Your task to perform on an android device: Search for sushi restaurants on Maps Image 0: 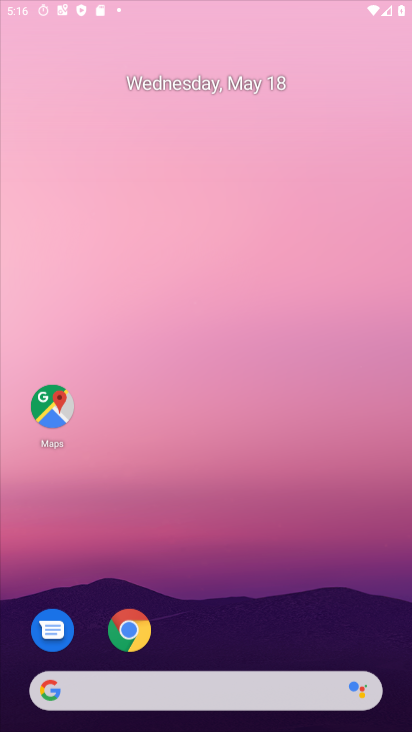
Step 0: drag from (195, 665) to (204, 338)
Your task to perform on an android device: Search for sushi restaurants on Maps Image 1: 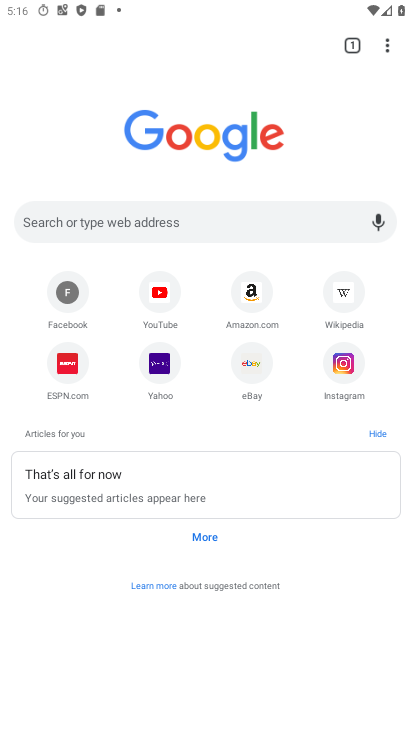
Step 1: press home button
Your task to perform on an android device: Search for sushi restaurants on Maps Image 2: 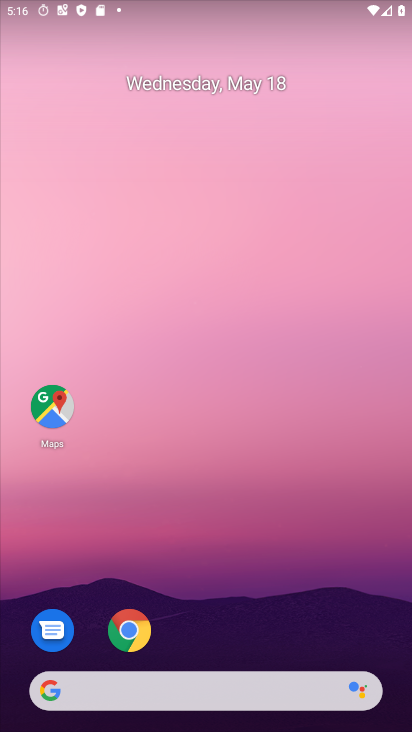
Step 2: click (35, 411)
Your task to perform on an android device: Search for sushi restaurants on Maps Image 3: 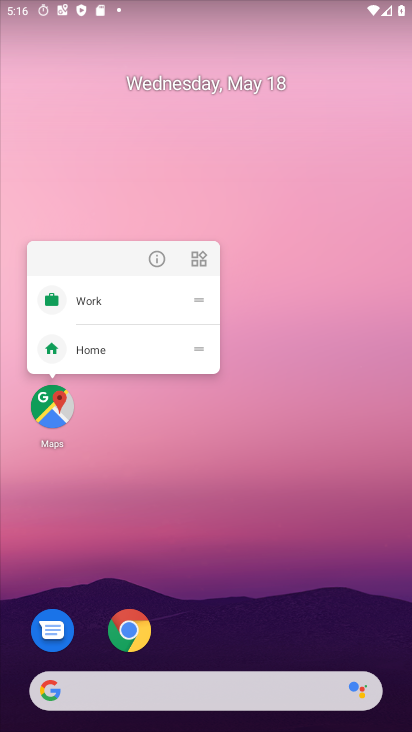
Step 3: click (57, 414)
Your task to perform on an android device: Search for sushi restaurants on Maps Image 4: 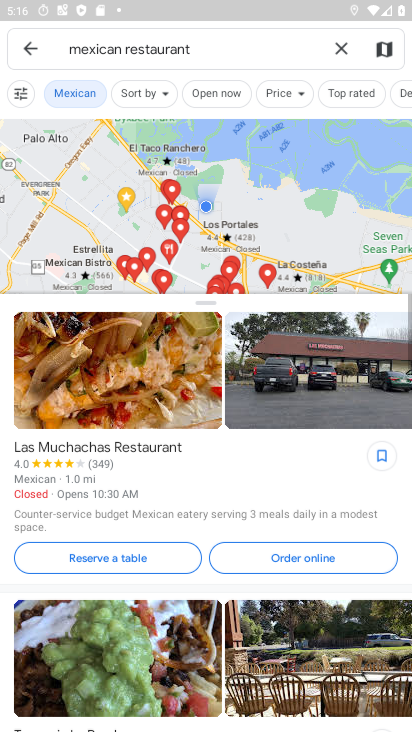
Step 4: click (351, 44)
Your task to perform on an android device: Search for sushi restaurants on Maps Image 5: 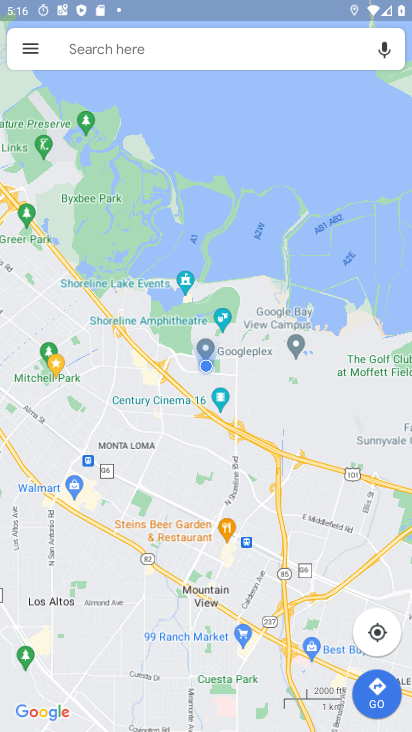
Step 5: click (207, 55)
Your task to perform on an android device: Search for sushi restaurants on Maps Image 6: 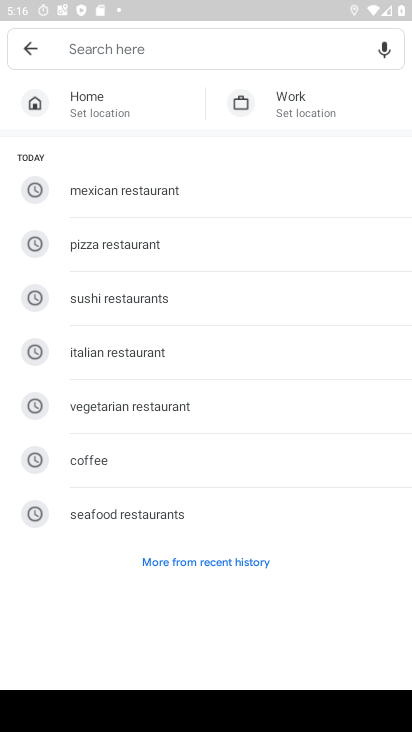
Step 6: click (91, 306)
Your task to perform on an android device: Search for sushi restaurants on Maps Image 7: 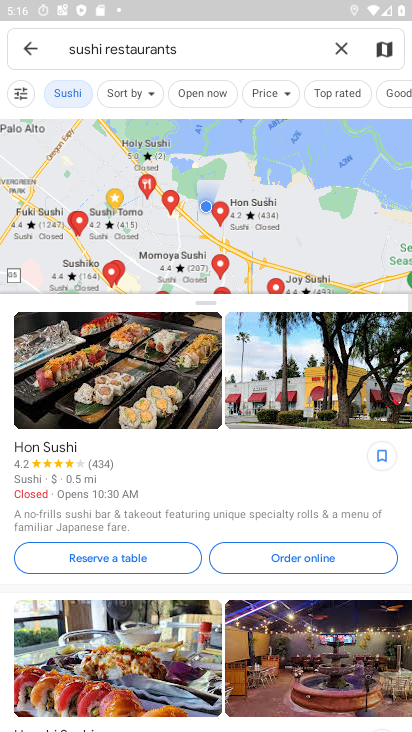
Step 7: task complete